Your task to perform on an android device: Open calendar and show me the first week of next month Image 0: 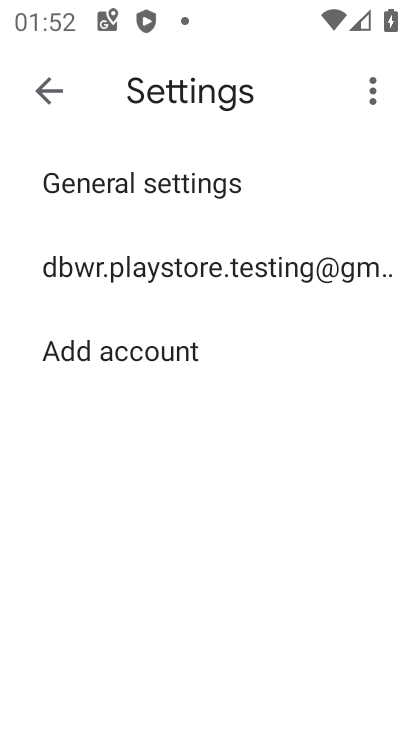
Step 0: press home button
Your task to perform on an android device: Open calendar and show me the first week of next month Image 1: 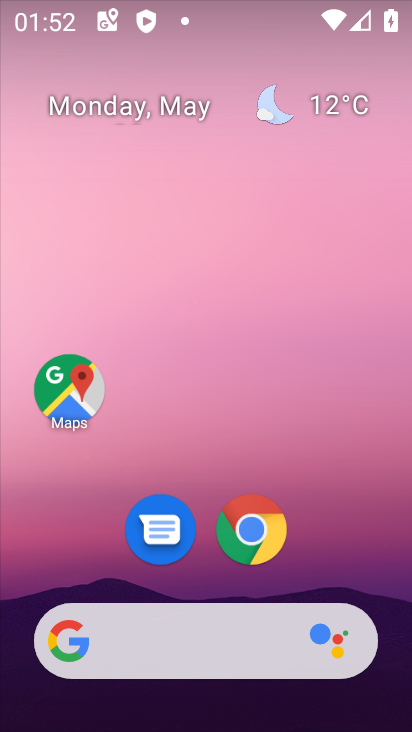
Step 1: drag from (382, 596) to (365, 42)
Your task to perform on an android device: Open calendar and show me the first week of next month Image 2: 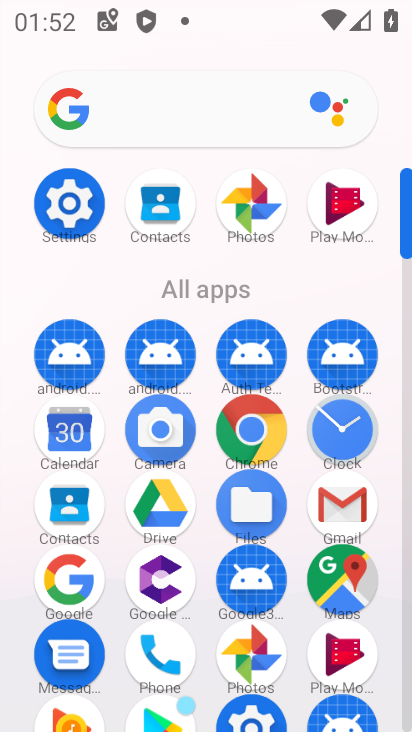
Step 2: click (70, 429)
Your task to perform on an android device: Open calendar and show me the first week of next month Image 3: 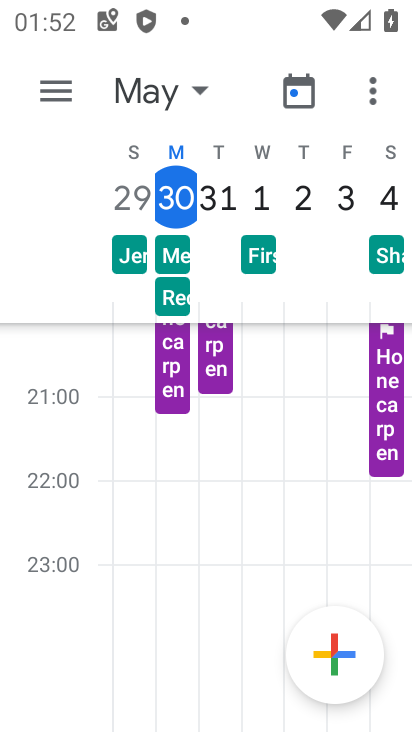
Step 3: click (202, 90)
Your task to perform on an android device: Open calendar and show me the first week of next month Image 4: 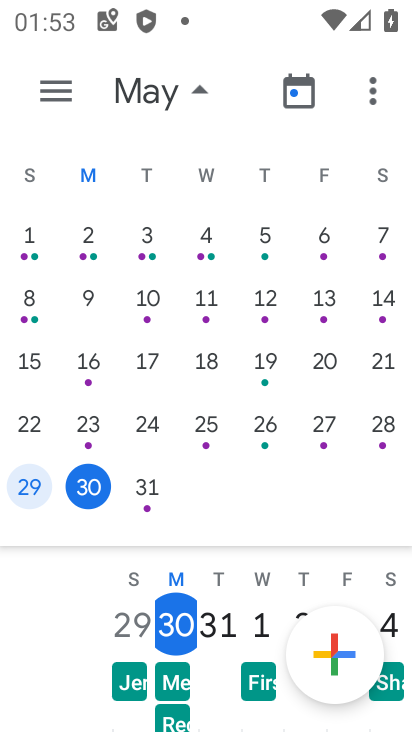
Step 4: drag from (377, 299) to (41, 306)
Your task to perform on an android device: Open calendar and show me the first week of next month Image 5: 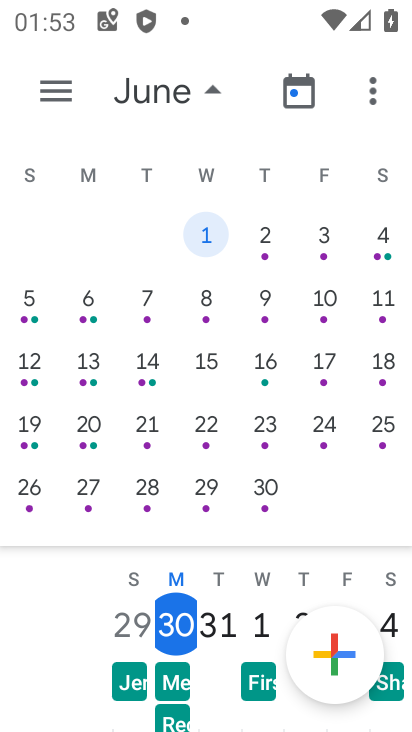
Step 5: click (24, 301)
Your task to perform on an android device: Open calendar and show me the first week of next month Image 6: 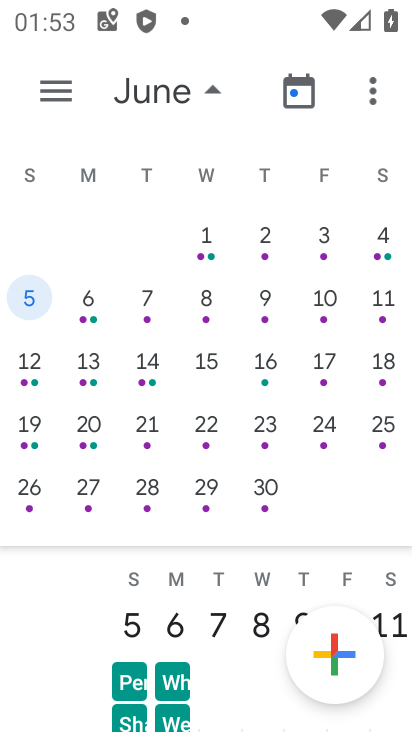
Step 6: task complete